Your task to perform on an android device: turn off improve location accuracy Image 0: 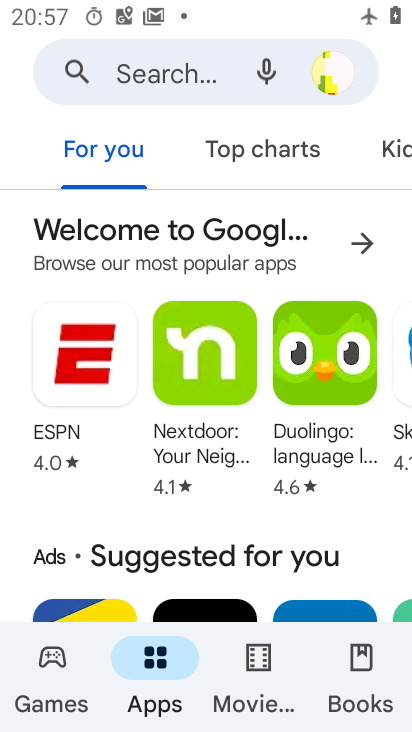
Step 0: press home button
Your task to perform on an android device: turn off improve location accuracy Image 1: 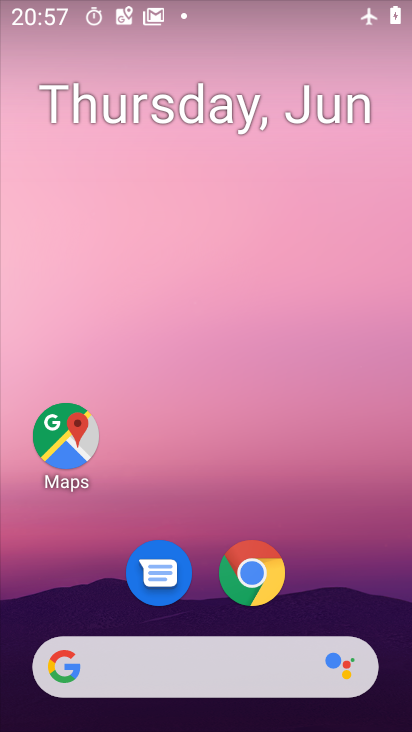
Step 1: drag from (263, 595) to (308, 241)
Your task to perform on an android device: turn off improve location accuracy Image 2: 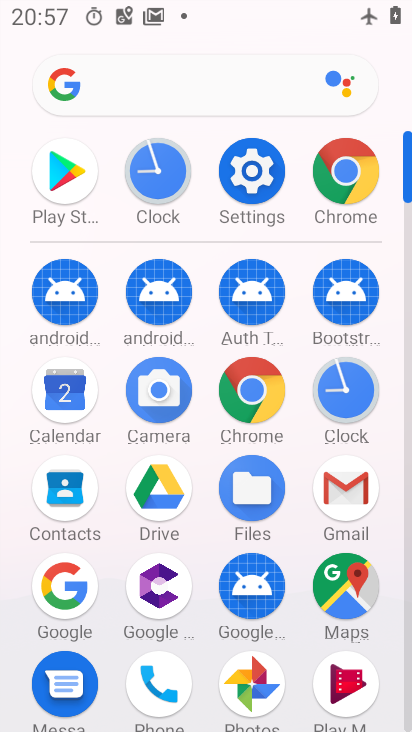
Step 2: click (251, 183)
Your task to perform on an android device: turn off improve location accuracy Image 3: 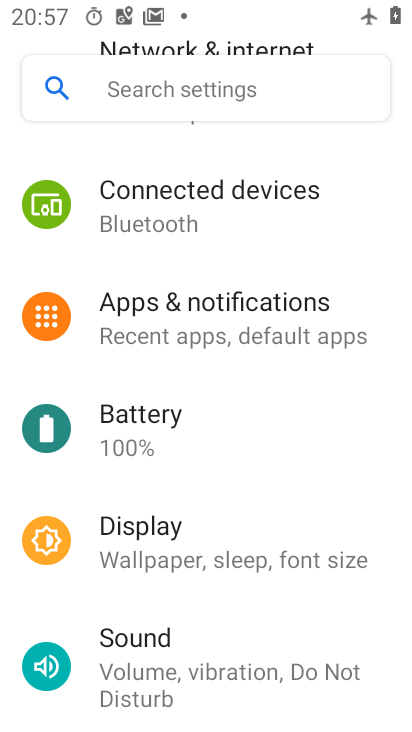
Step 3: drag from (171, 646) to (195, 273)
Your task to perform on an android device: turn off improve location accuracy Image 4: 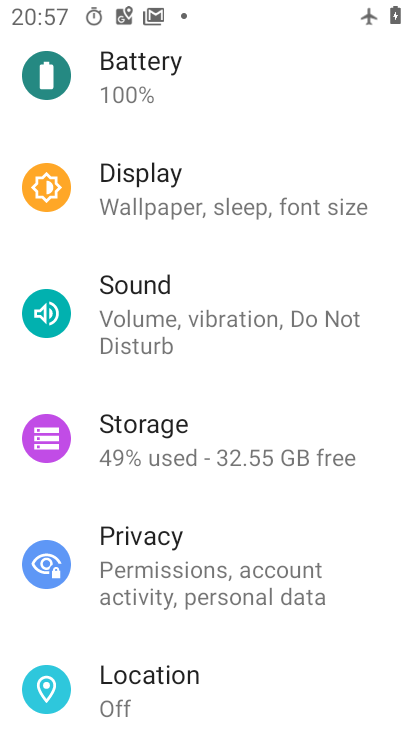
Step 4: click (157, 679)
Your task to perform on an android device: turn off improve location accuracy Image 5: 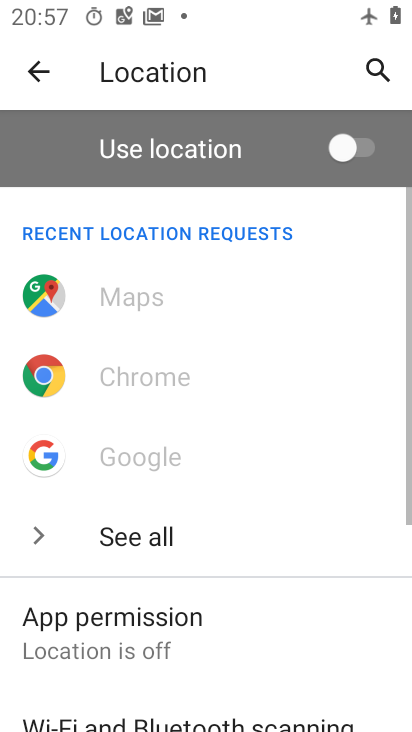
Step 5: drag from (167, 628) to (179, 237)
Your task to perform on an android device: turn off improve location accuracy Image 6: 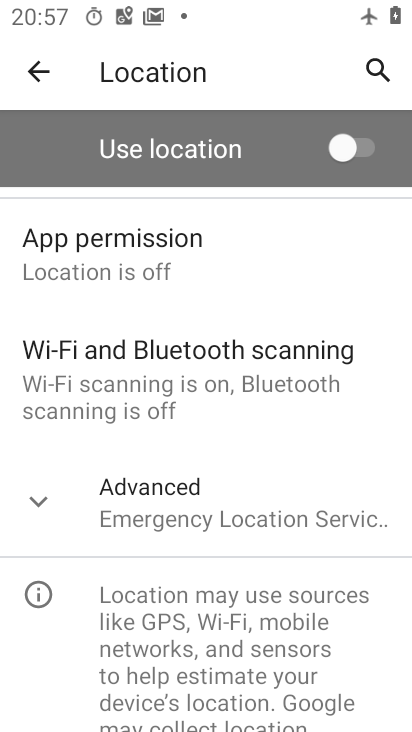
Step 6: click (155, 502)
Your task to perform on an android device: turn off improve location accuracy Image 7: 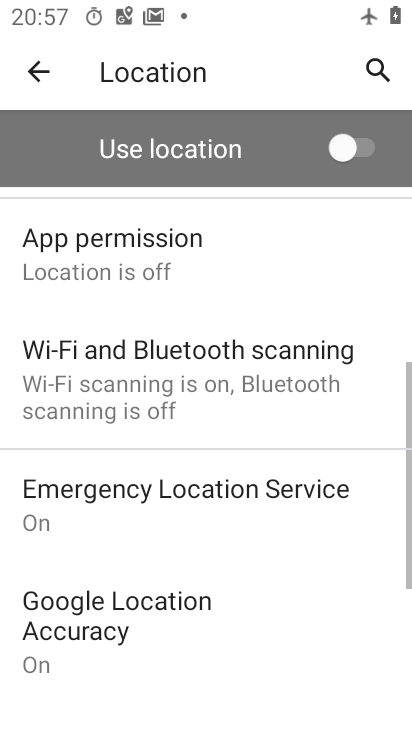
Step 7: drag from (131, 659) to (163, 434)
Your task to perform on an android device: turn off improve location accuracy Image 8: 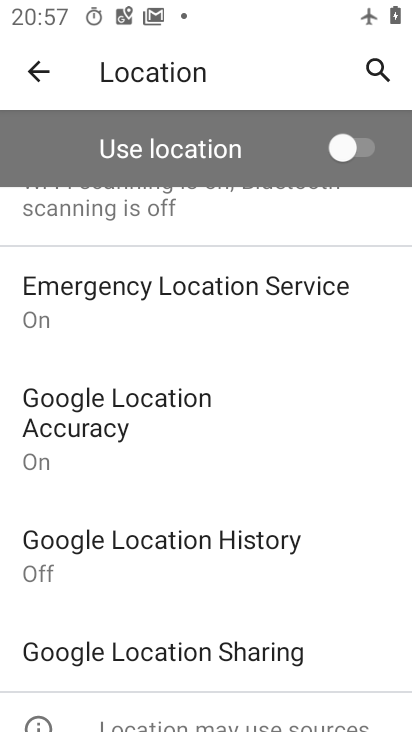
Step 8: click (105, 427)
Your task to perform on an android device: turn off improve location accuracy Image 9: 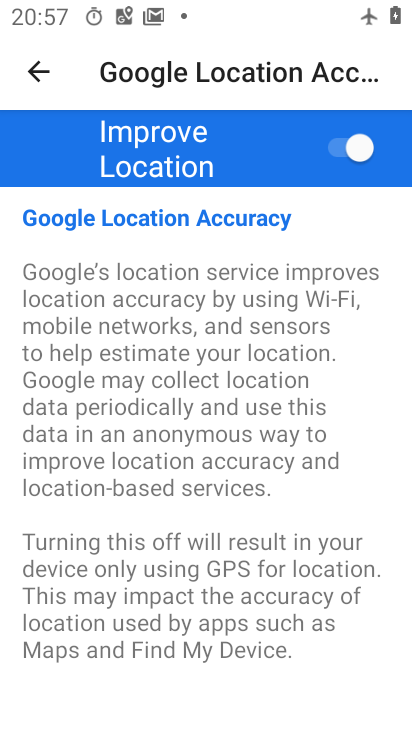
Step 9: click (345, 156)
Your task to perform on an android device: turn off improve location accuracy Image 10: 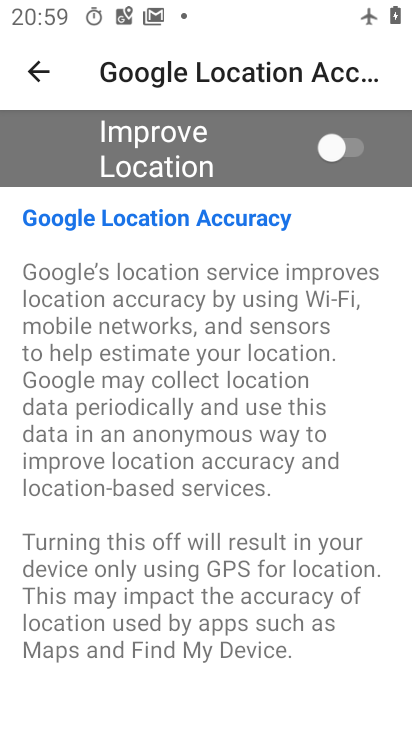
Step 10: task complete